Your task to perform on an android device: empty trash in google photos Image 0: 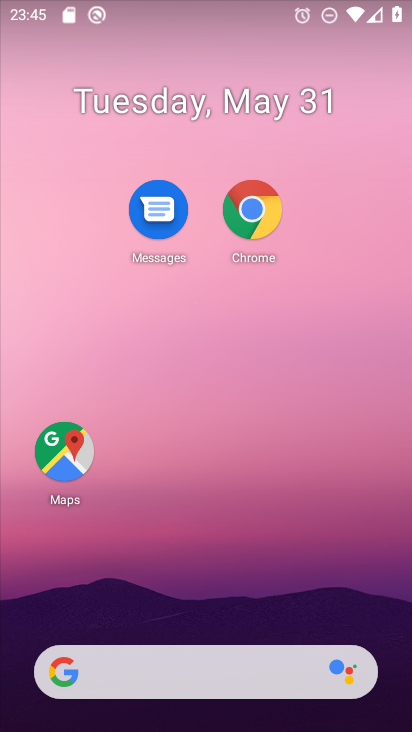
Step 0: drag from (223, 605) to (219, 104)
Your task to perform on an android device: empty trash in google photos Image 1: 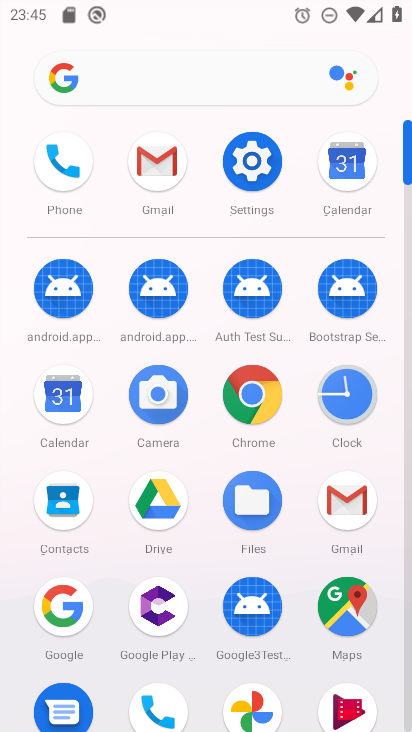
Step 1: click (252, 694)
Your task to perform on an android device: empty trash in google photos Image 2: 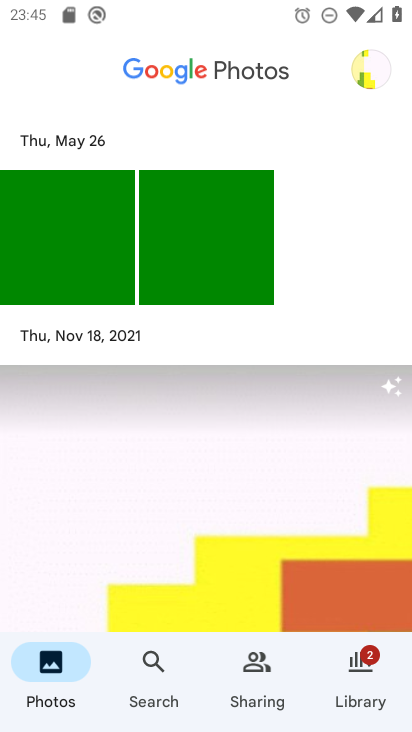
Step 2: click (368, 68)
Your task to perform on an android device: empty trash in google photos Image 3: 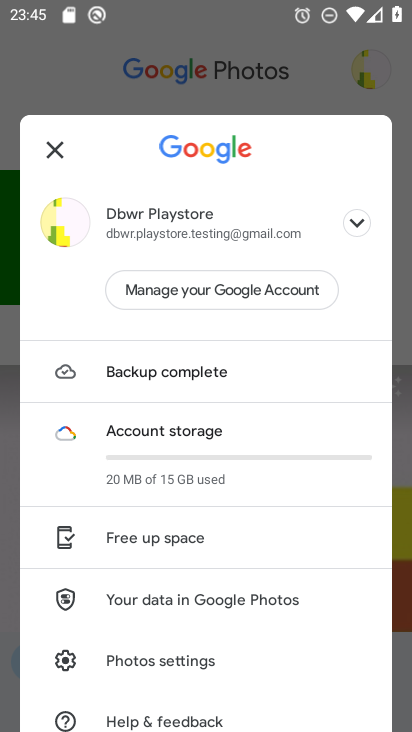
Step 3: click (258, 63)
Your task to perform on an android device: empty trash in google photos Image 4: 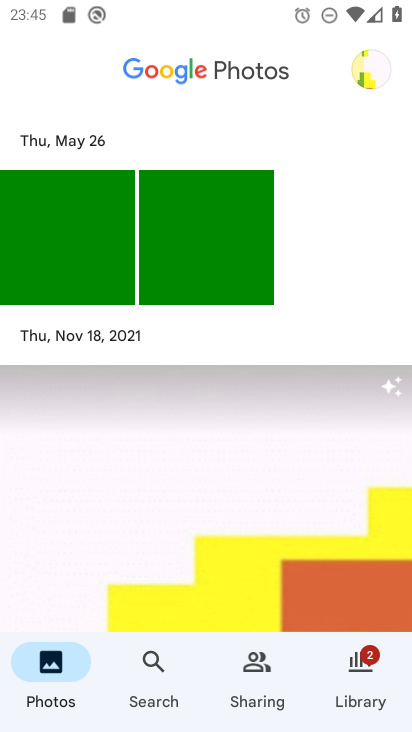
Step 4: click (356, 662)
Your task to perform on an android device: empty trash in google photos Image 5: 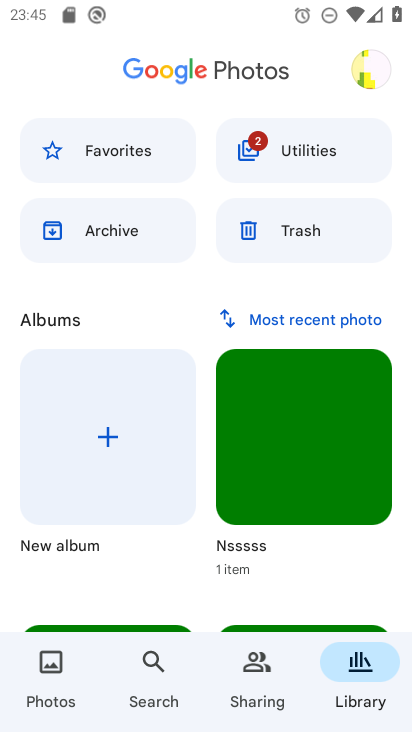
Step 5: click (276, 240)
Your task to perform on an android device: empty trash in google photos Image 6: 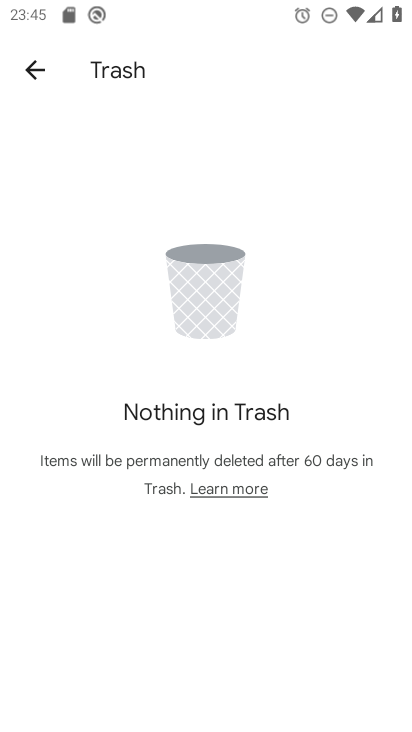
Step 6: task complete